Your task to perform on an android device: all mails in gmail Image 0: 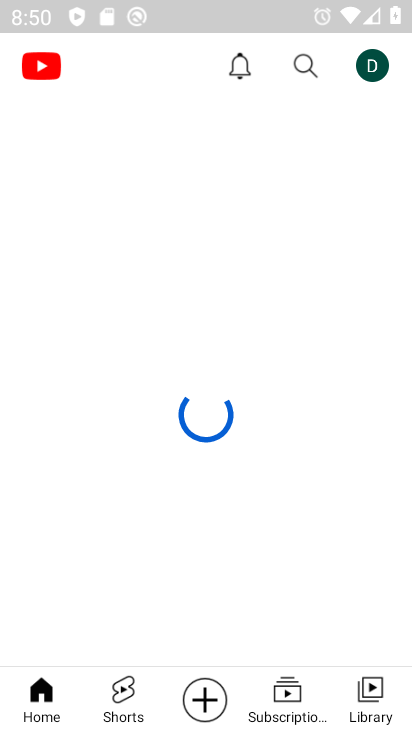
Step 0: press home button
Your task to perform on an android device: all mails in gmail Image 1: 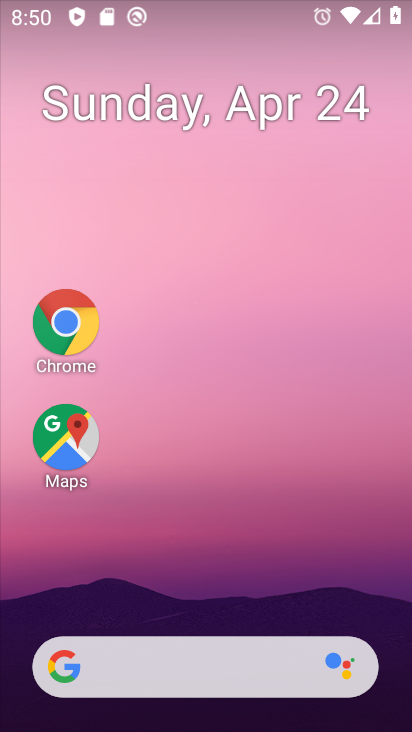
Step 1: drag from (228, 597) to (45, 18)
Your task to perform on an android device: all mails in gmail Image 2: 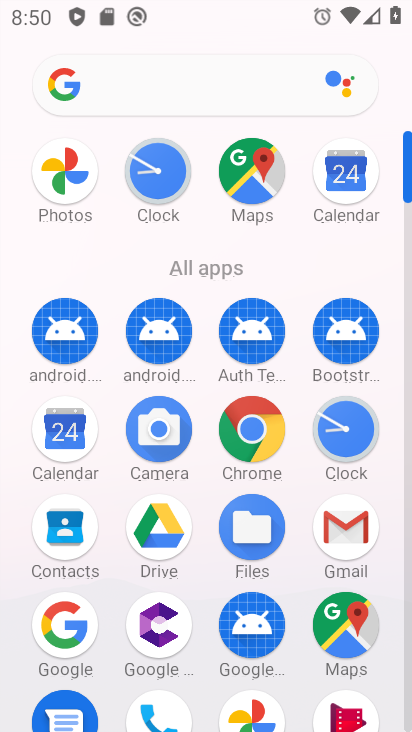
Step 2: click (349, 522)
Your task to perform on an android device: all mails in gmail Image 3: 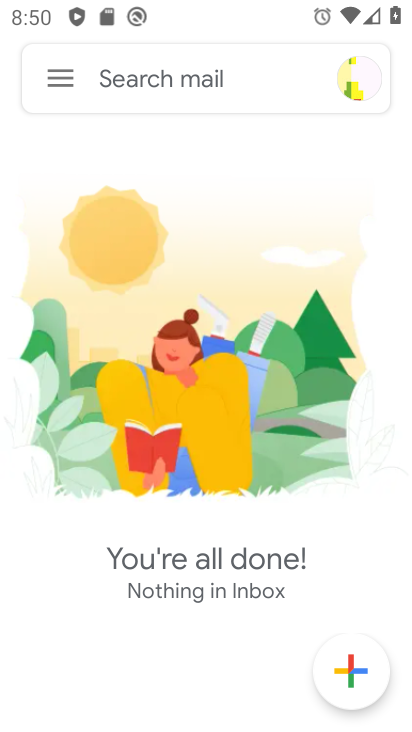
Step 3: click (53, 75)
Your task to perform on an android device: all mails in gmail Image 4: 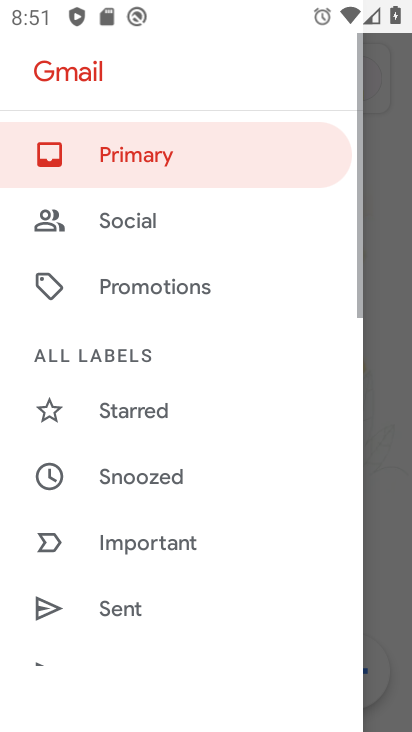
Step 4: drag from (118, 575) to (103, 179)
Your task to perform on an android device: all mails in gmail Image 5: 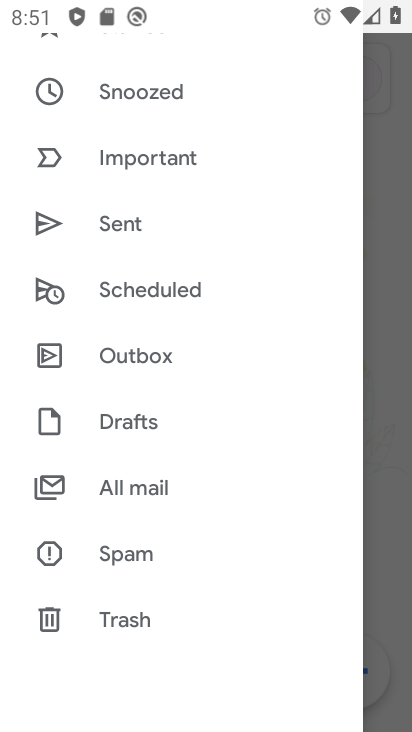
Step 5: click (135, 487)
Your task to perform on an android device: all mails in gmail Image 6: 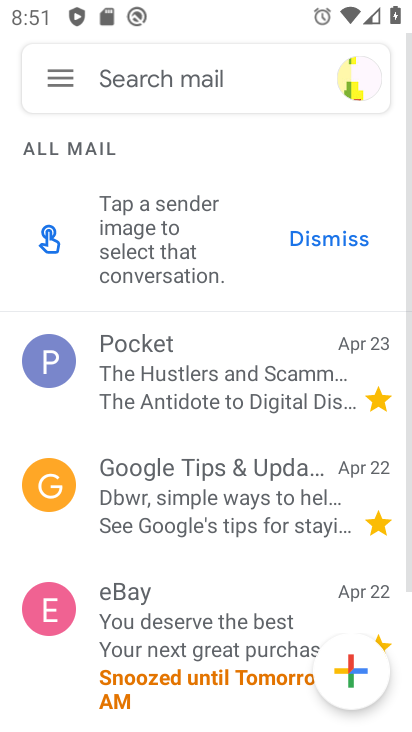
Step 6: task complete